Your task to perform on an android device: Go to sound settings Image 0: 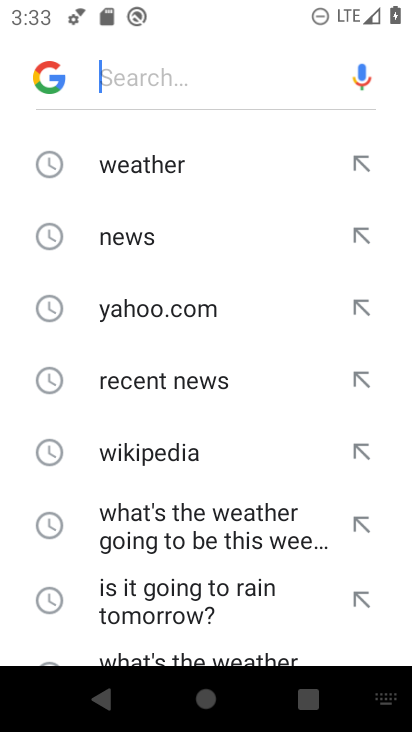
Step 0: press home button
Your task to perform on an android device: Go to sound settings Image 1: 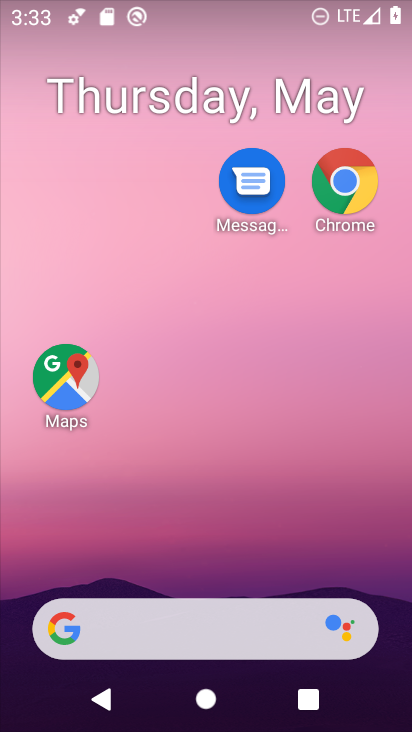
Step 1: drag from (216, 566) to (203, 95)
Your task to perform on an android device: Go to sound settings Image 2: 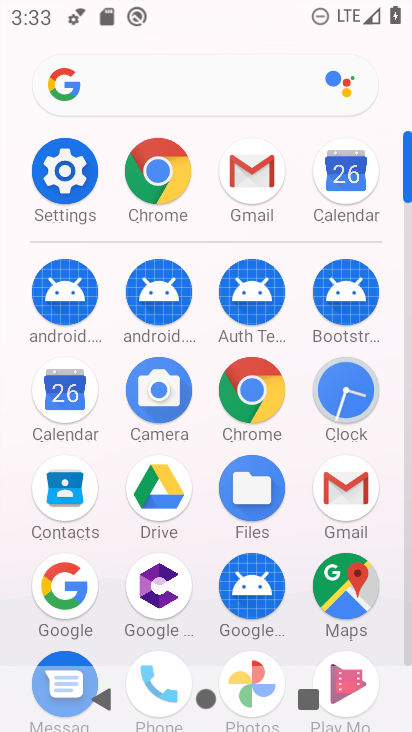
Step 2: click (79, 182)
Your task to perform on an android device: Go to sound settings Image 3: 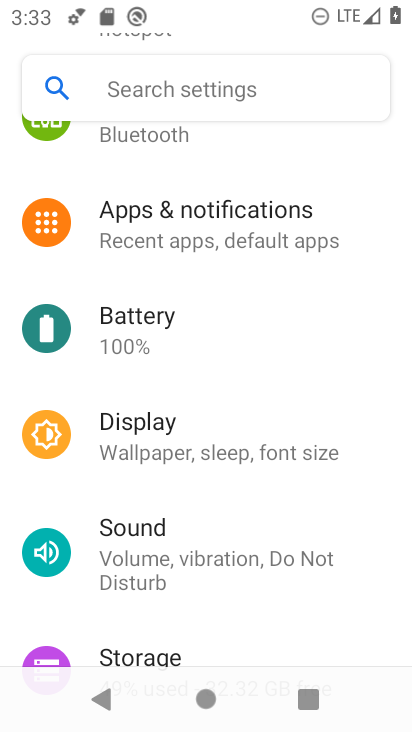
Step 3: click (220, 550)
Your task to perform on an android device: Go to sound settings Image 4: 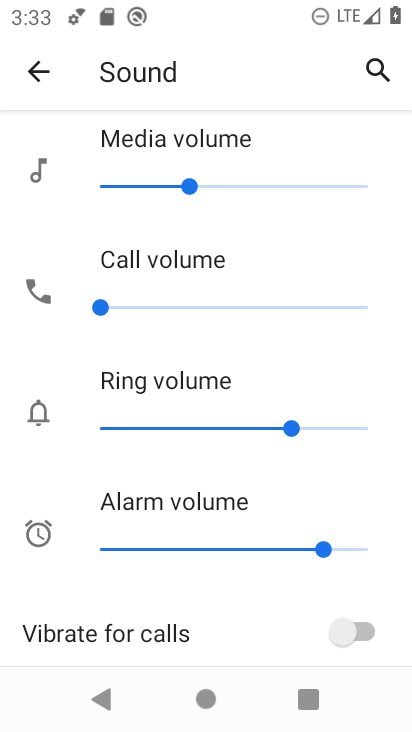
Step 4: task complete